Your task to perform on an android device: toggle wifi Image 0: 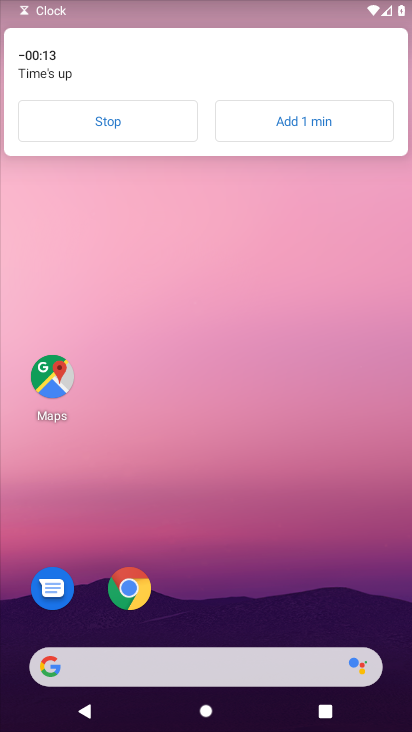
Step 0: click (101, 127)
Your task to perform on an android device: toggle wifi Image 1: 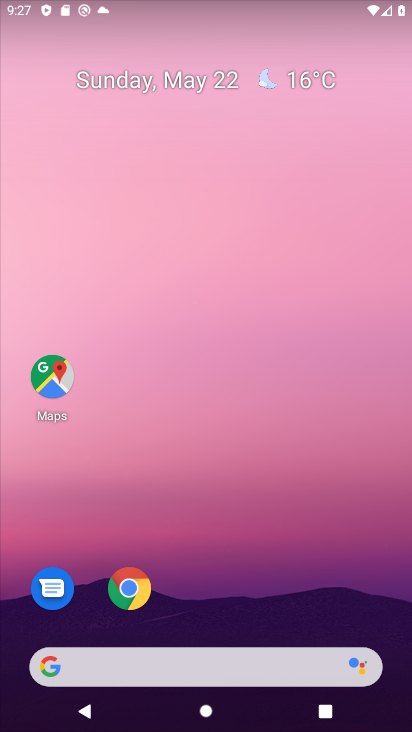
Step 1: drag from (208, 622) to (228, 90)
Your task to perform on an android device: toggle wifi Image 2: 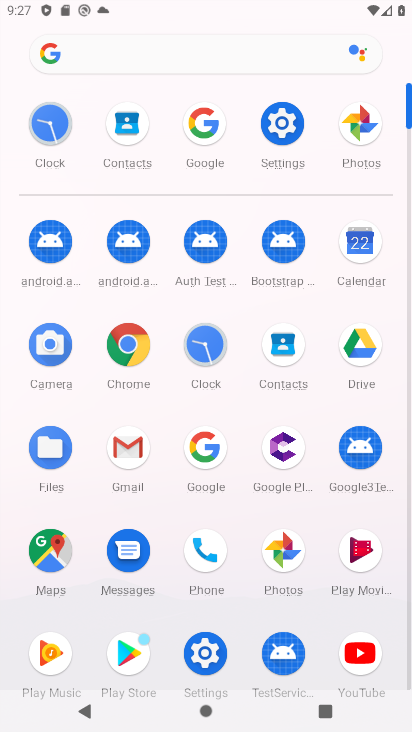
Step 2: click (275, 126)
Your task to perform on an android device: toggle wifi Image 3: 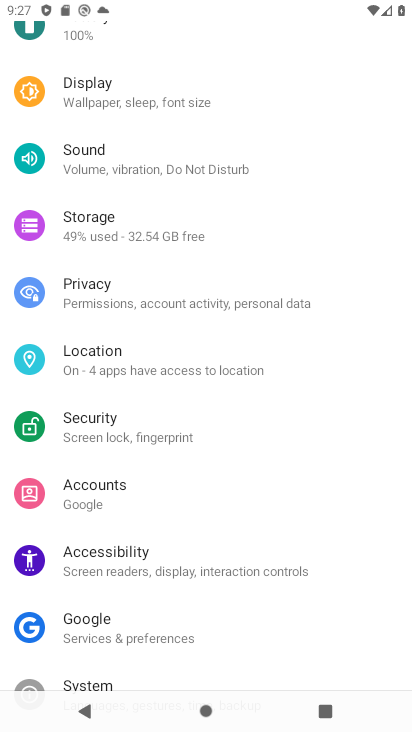
Step 3: drag from (212, 184) to (184, 506)
Your task to perform on an android device: toggle wifi Image 4: 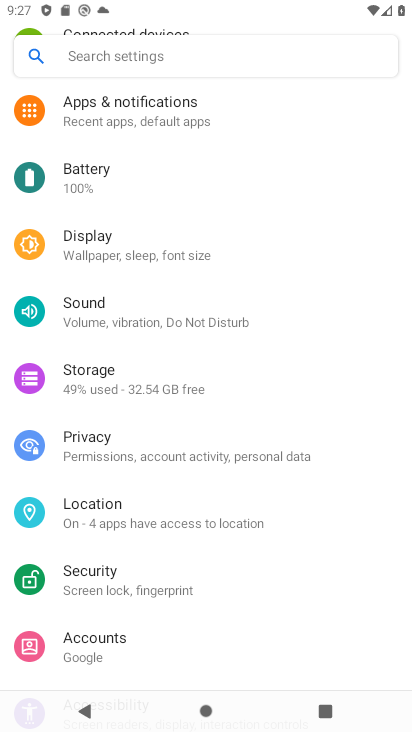
Step 4: drag from (158, 126) to (163, 466)
Your task to perform on an android device: toggle wifi Image 5: 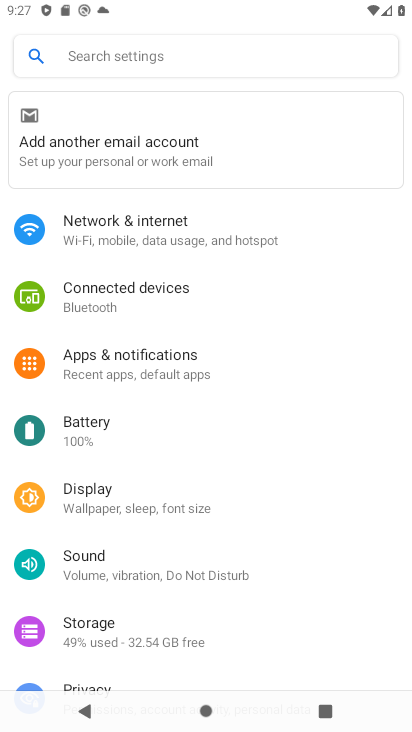
Step 5: click (196, 230)
Your task to perform on an android device: toggle wifi Image 6: 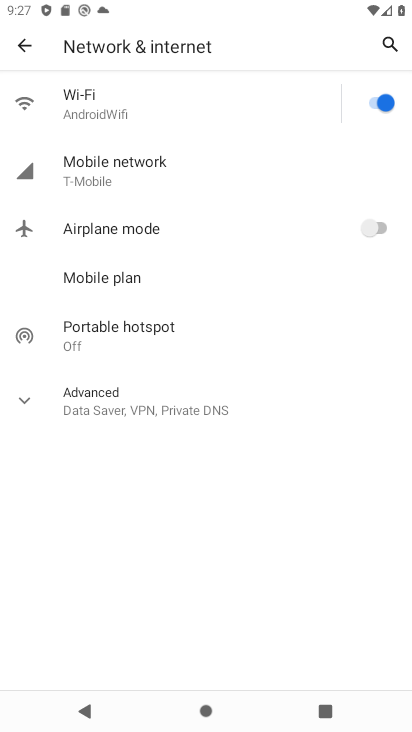
Step 6: click (375, 102)
Your task to perform on an android device: toggle wifi Image 7: 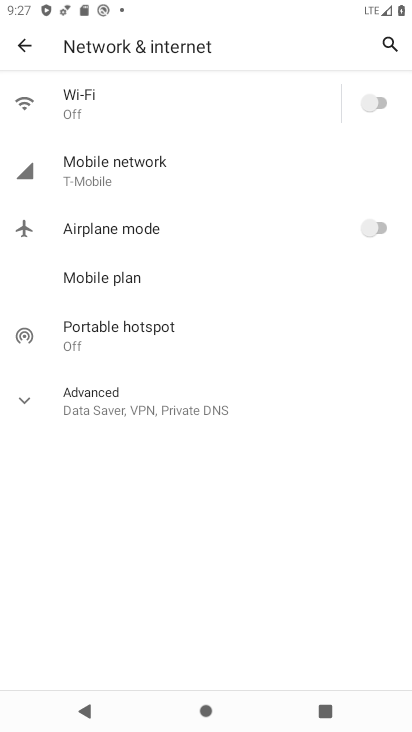
Step 7: task complete